Your task to perform on an android device: Open location settings Image 0: 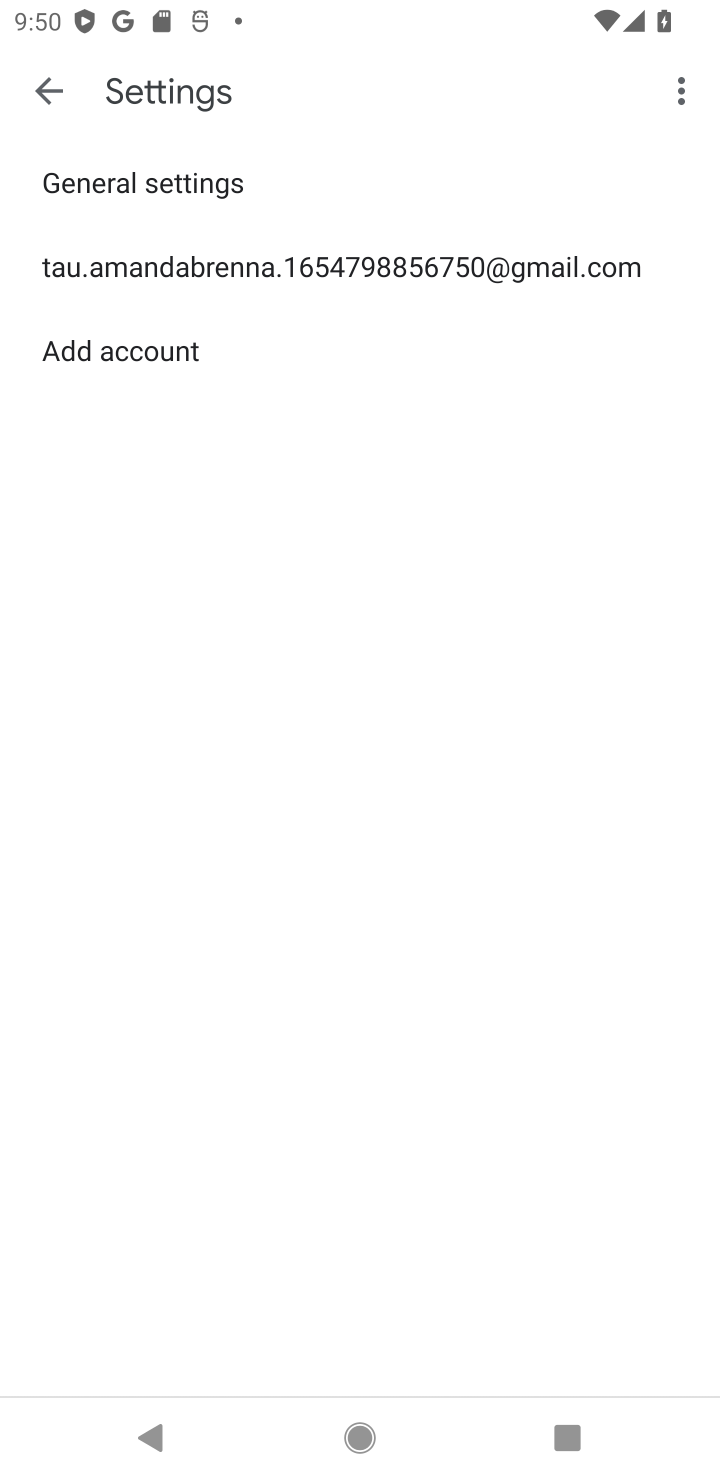
Step 0: press home button
Your task to perform on an android device: Open location settings Image 1: 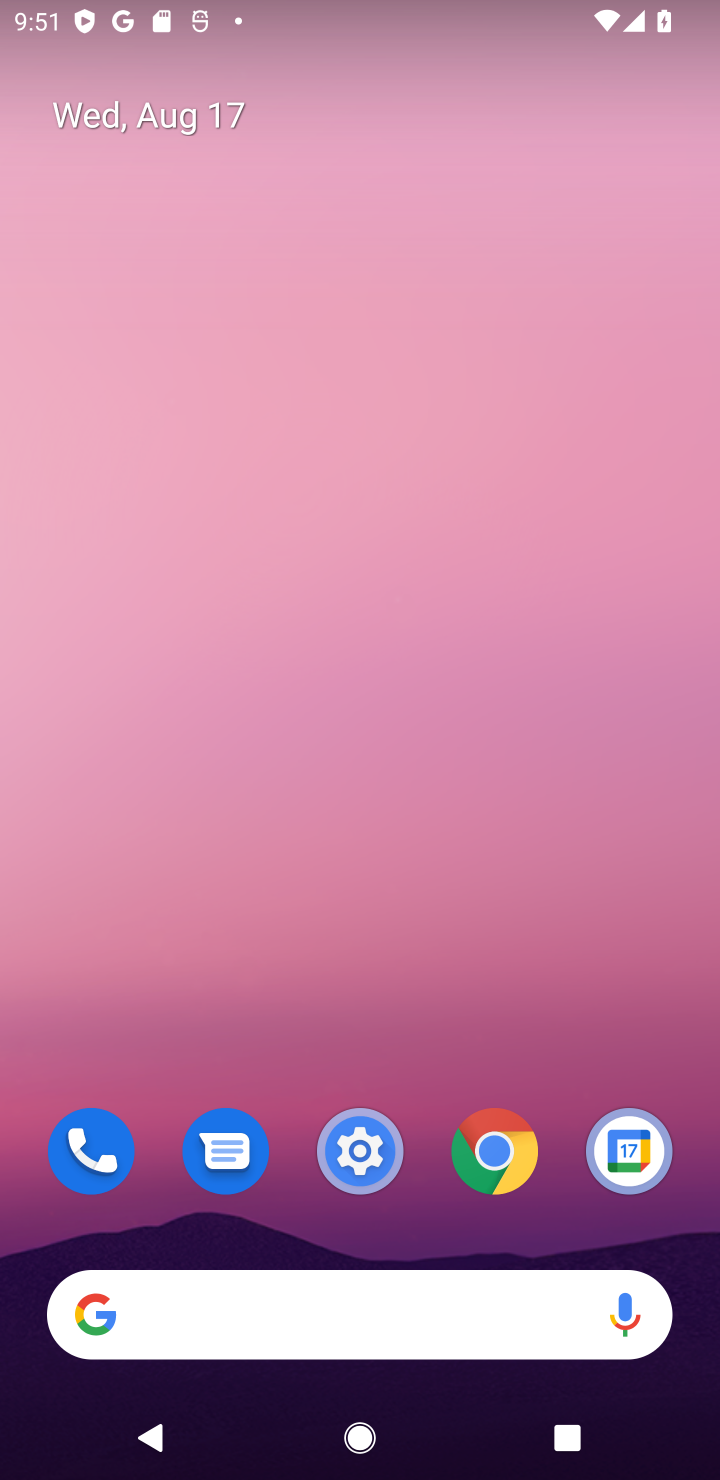
Step 1: click (354, 1161)
Your task to perform on an android device: Open location settings Image 2: 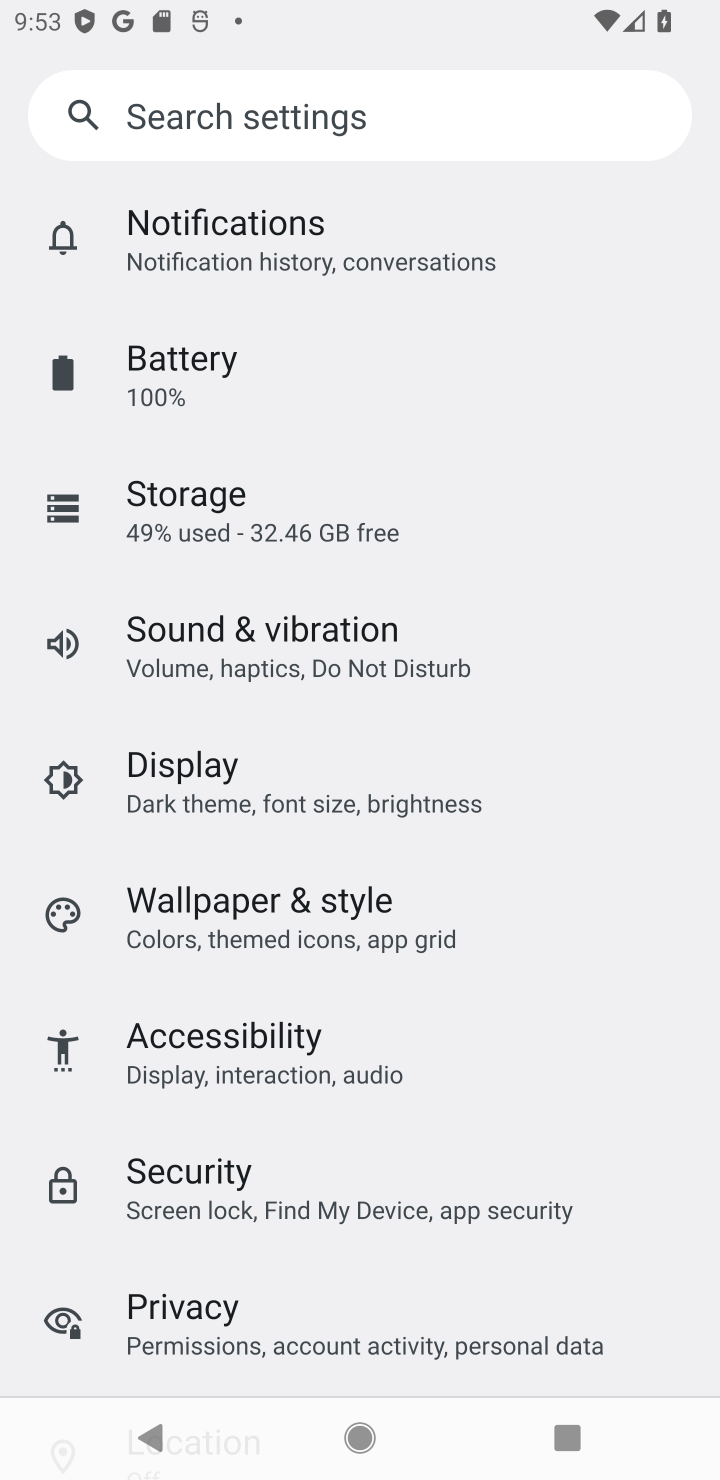
Step 2: drag from (304, 1078) to (366, 514)
Your task to perform on an android device: Open location settings Image 3: 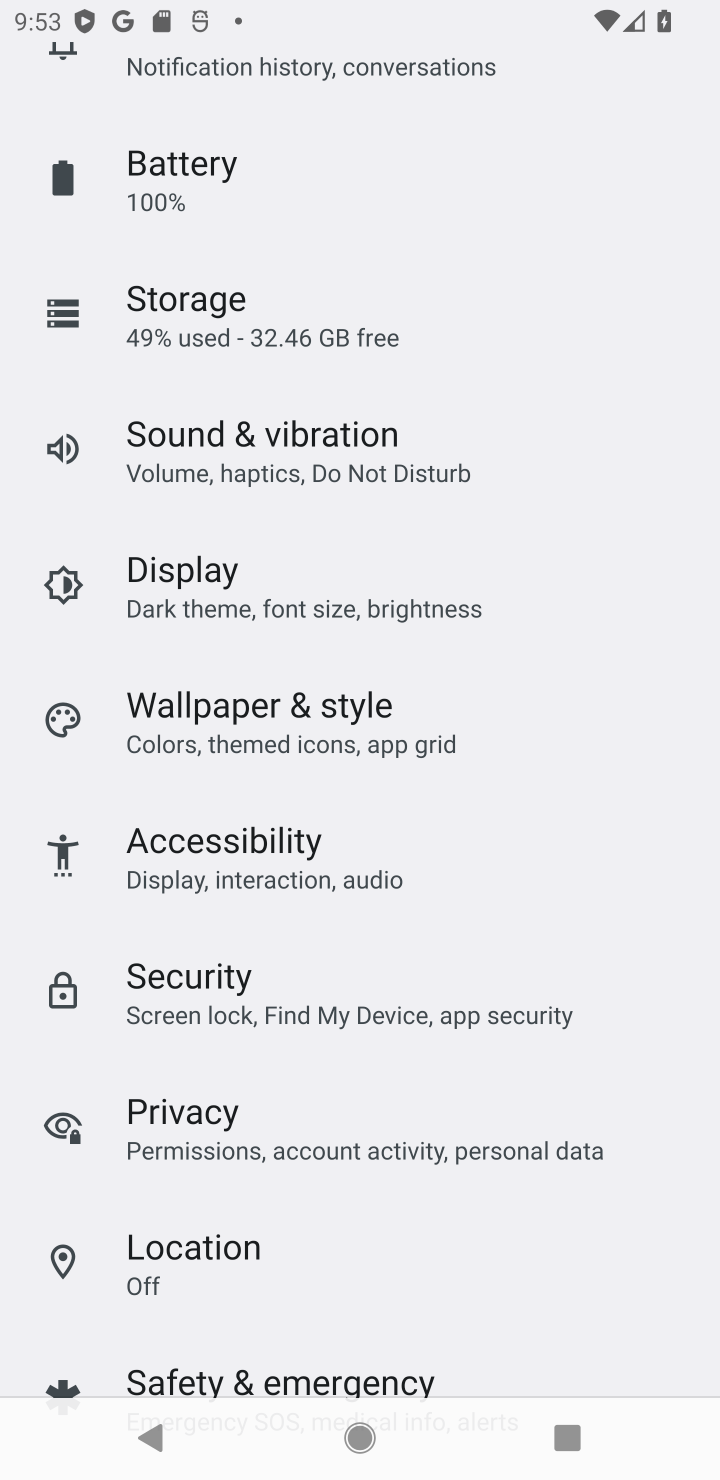
Step 3: click (161, 1266)
Your task to perform on an android device: Open location settings Image 4: 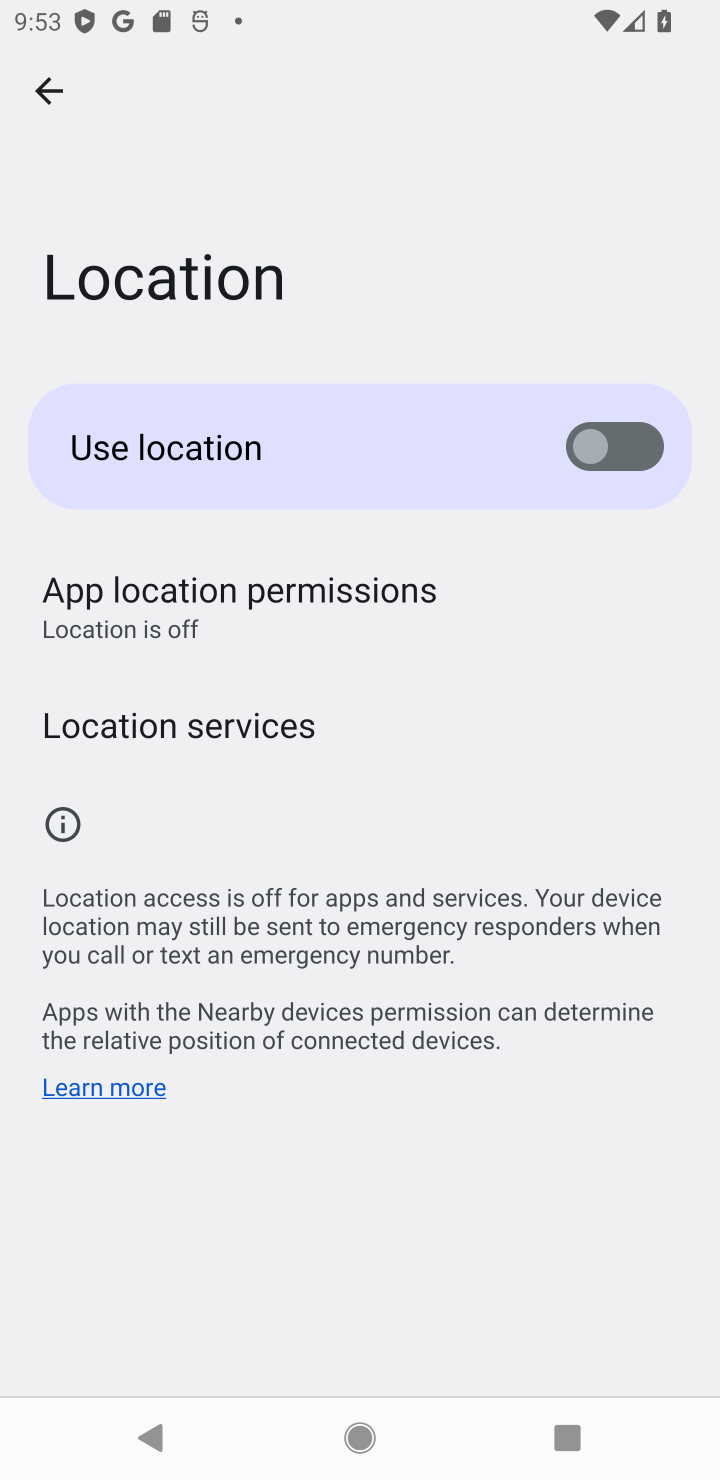
Step 4: task complete